Your task to perform on an android device: turn off picture-in-picture Image 0: 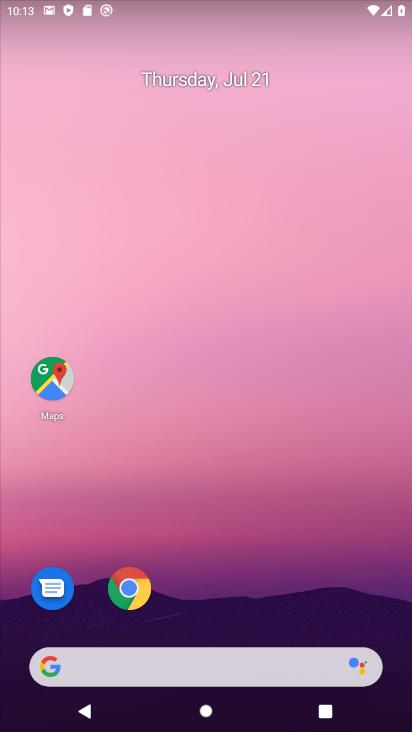
Step 0: drag from (199, 555) to (241, 331)
Your task to perform on an android device: turn off picture-in-picture Image 1: 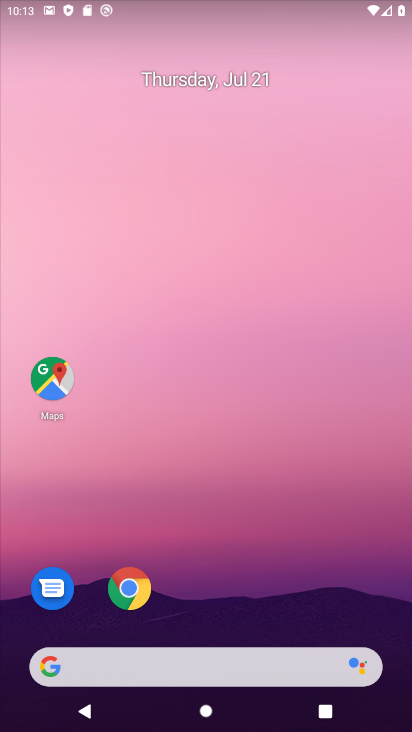
Step 1: drag from (202, 544) to (51, 259)
Your task to perform on an android device: turn off picture-in-picture Image 2: 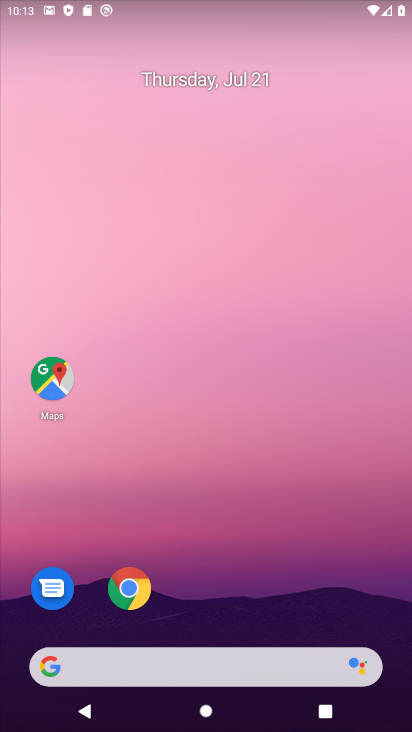
Step 2: drag from (193, 608) to (220, 131)
Your task to perform on an android device: turn off picture-in-picture Image 3: 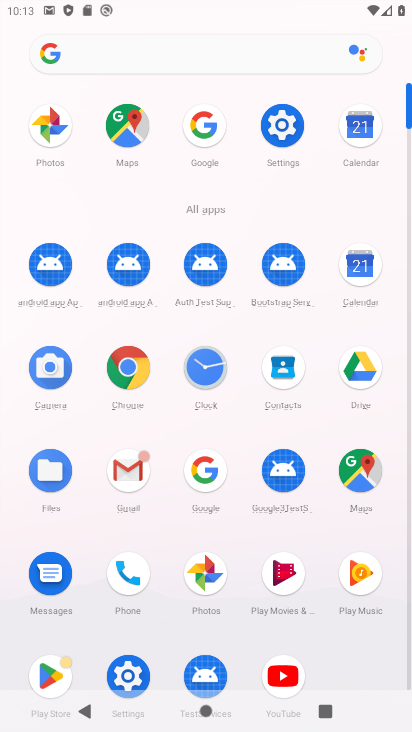
Step 3: click (291, 120)
Your task to perform on an android device: turn off picture-in-picture Image 4: 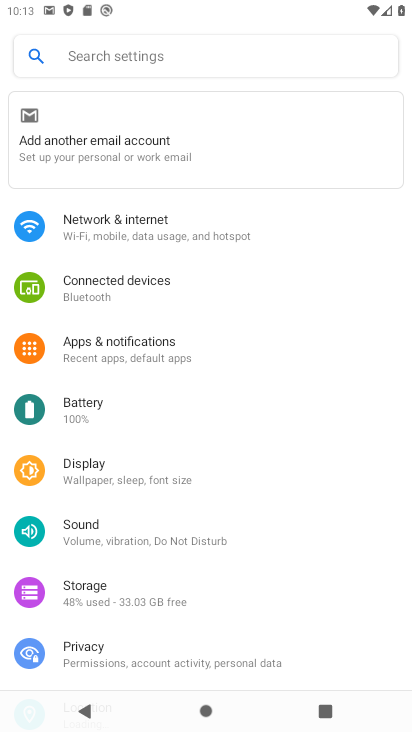
Step 4: click (138, 352)
Your task to perform on an android device: turn off picture-in-picture Image 5: 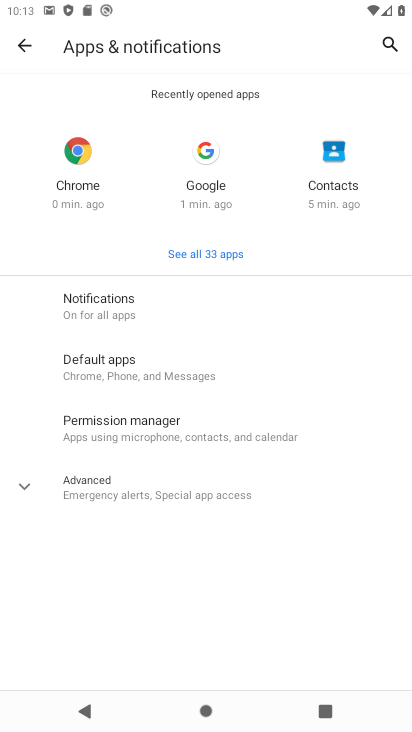
Step 5: click (95, 306)
Your task to perform on an android device: turn off picture-in-picture Image 6: 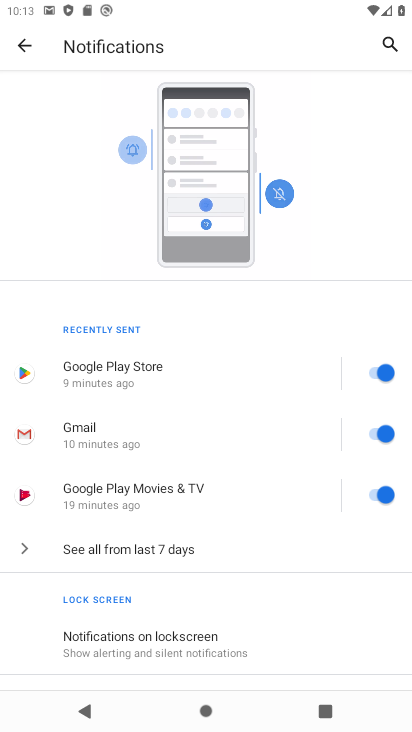
Step 6: drag from (219, 221) to (228, 148)
Your task to perform on an android device: turn off picture-in-picture Image 7: 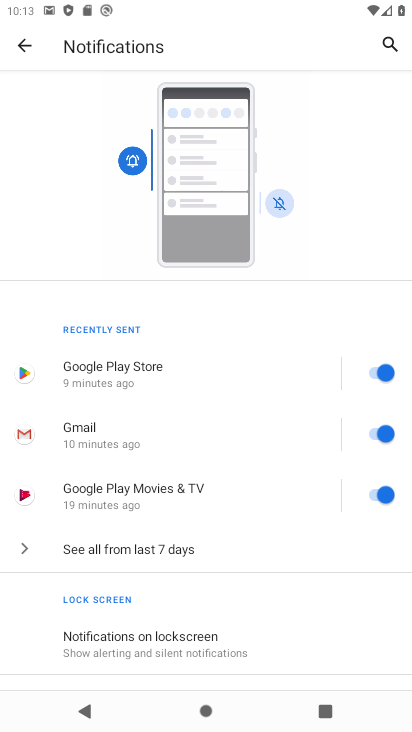
Step 7: click (18, 52)
Your task to perform on an android device: turn off picture-in-picture Image 8: 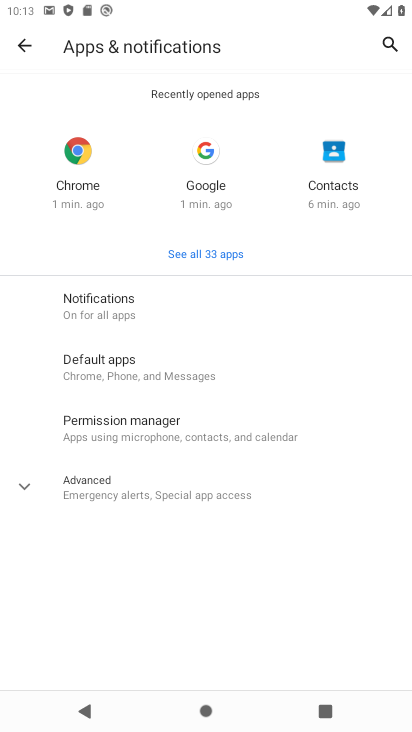
Step 8: click (153, 490)
Your task to perform on an android device: turn off picture-in-picture Image 9: 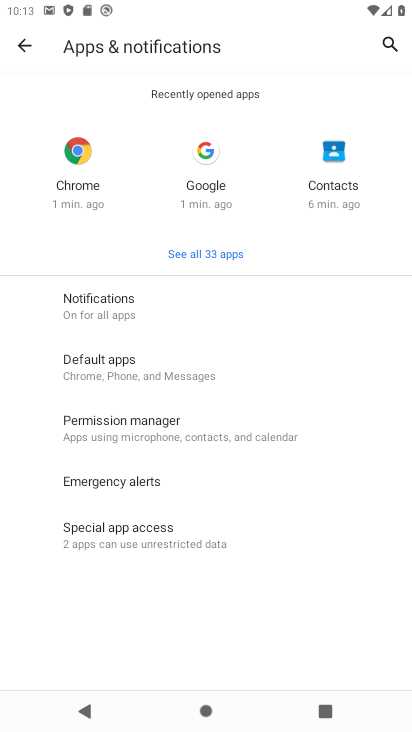
Step 9: click (124, 523)
Your task to perform on an android device: turn off picture-in-picture Image 10: 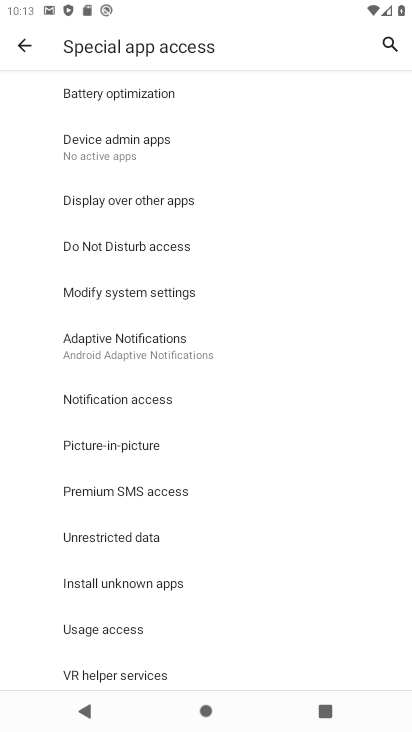
Step 10: click (145, 450)
Your task to perform on an android device: turn off picture-in-picture Image 11: 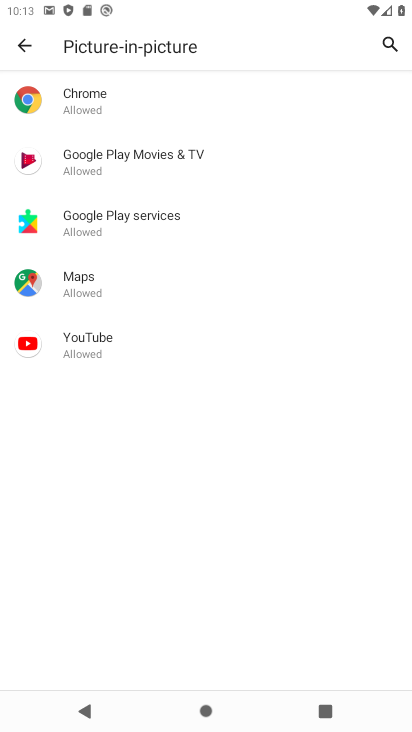
Step 11: drag from (182, 394) to (209, 134)
Your task to perform on an android device: turn off picture-in-picture Image 12: 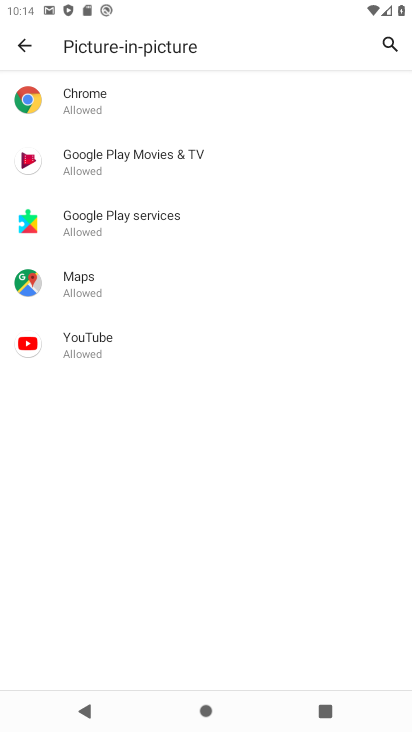
Step 12: click (210, 142)
Your task to perform on an android device: turn off picture-in-picture Image 13: 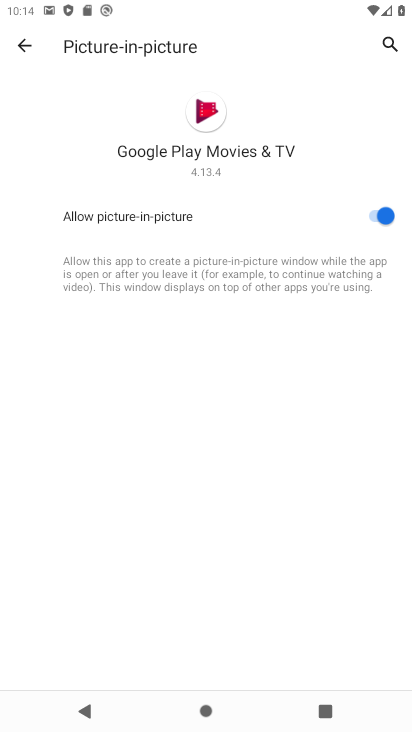
Step 13: task complete